Your task to perform on an android device: What is the news today? Image 0: 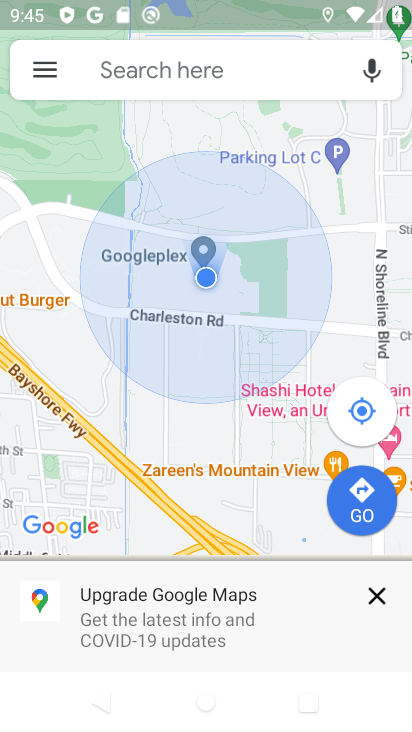
Step 0: press home button
Your task to perform on an android device: What is the news today? Image 1: 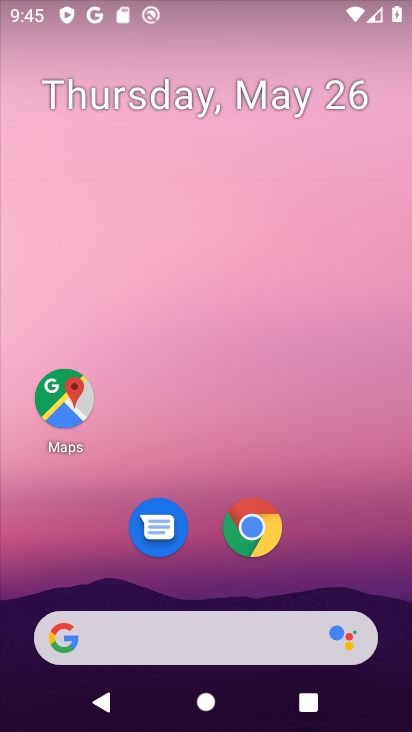
Step 1: task complete